Your task to perform on an android device: turn on the 24-hour format for clock Image 0: 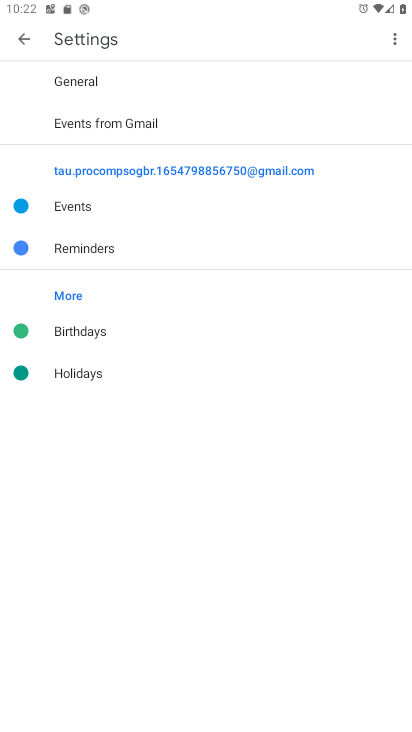
Step 0: press home button
Your task to perform on an android device: turn on the 24-hour format for clock Image 1: 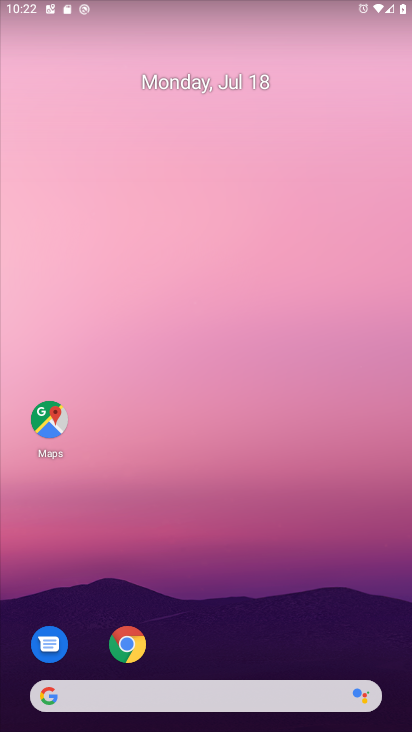
Step 1: drag from (228, 666) to (215, 0)
Your task to perform on an android device: turn on the 24-hour format for clock Image 2: 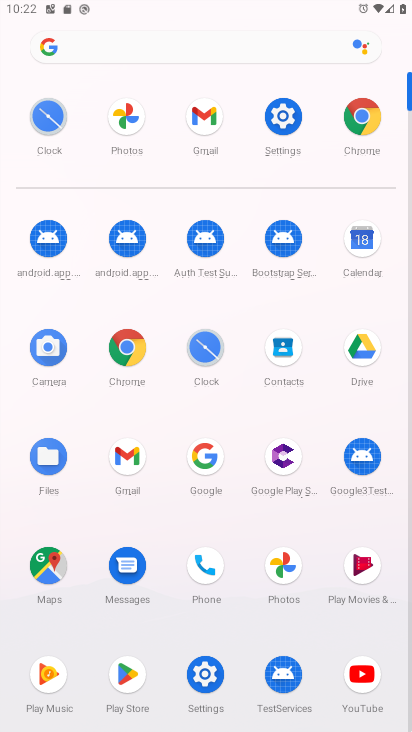
Step 2: click (64, 117)
Your task to perform on an android device: turn on the 24-hour format for clock Image 3: 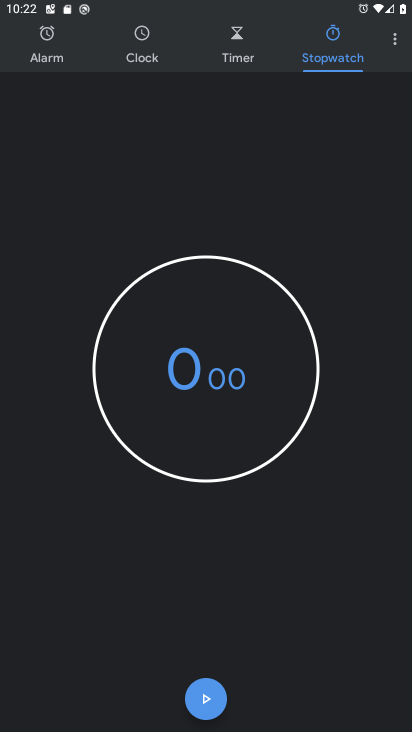
Step 3: task complete